Your task to perform on an android device: What's the weather going to be tomorrow? Image 0: 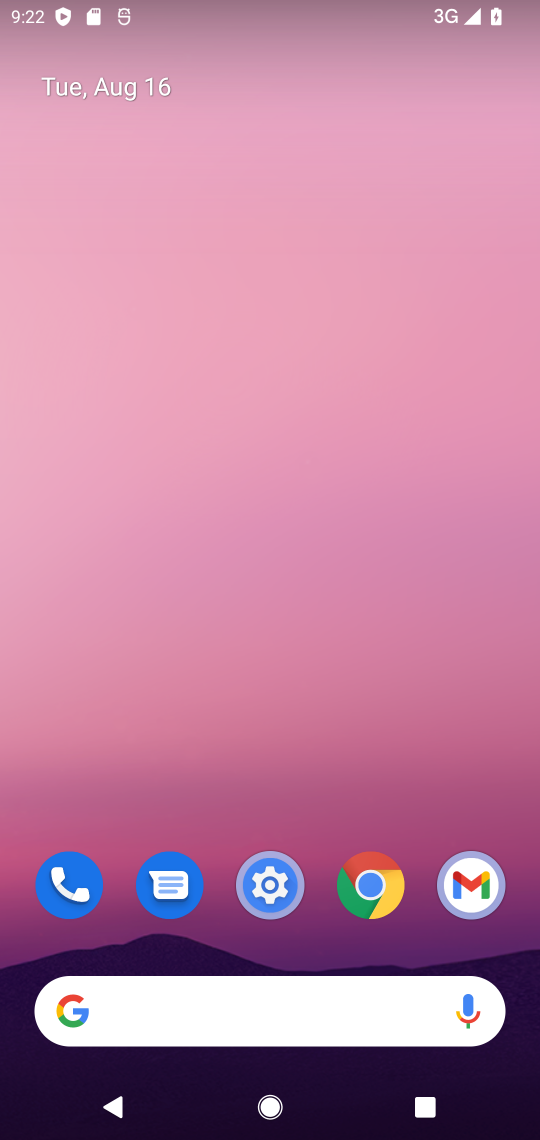
Step 0: drag from (243, 792) to (303, 60)
Your task to perform on an android device: What's the weather going to be tomorrow? Image 1: 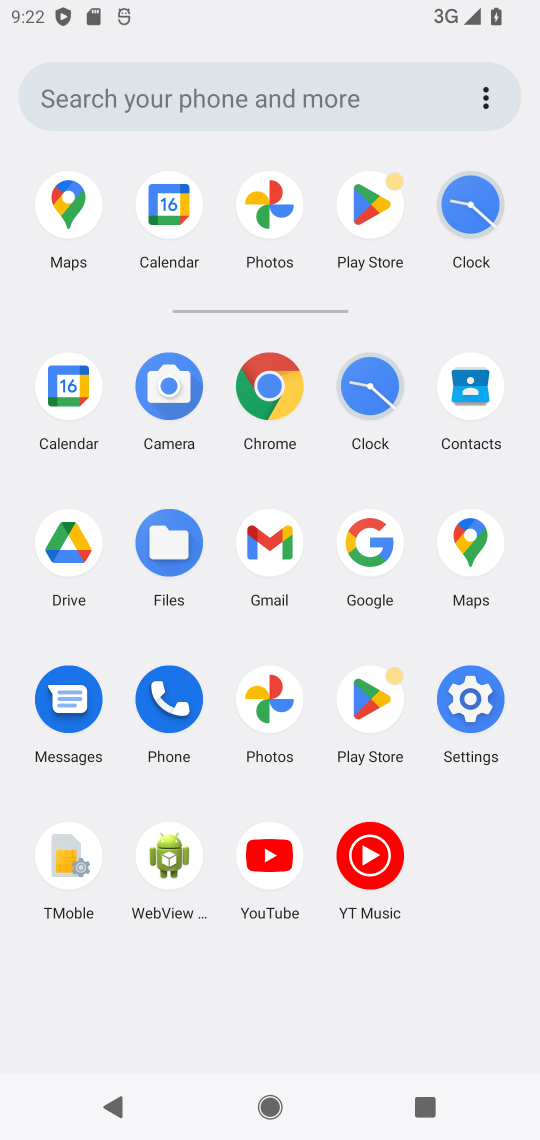
Step 1: click (368, 570)
Your task to perform on an android device: What's the weather going to be tomorrow? Image 2: 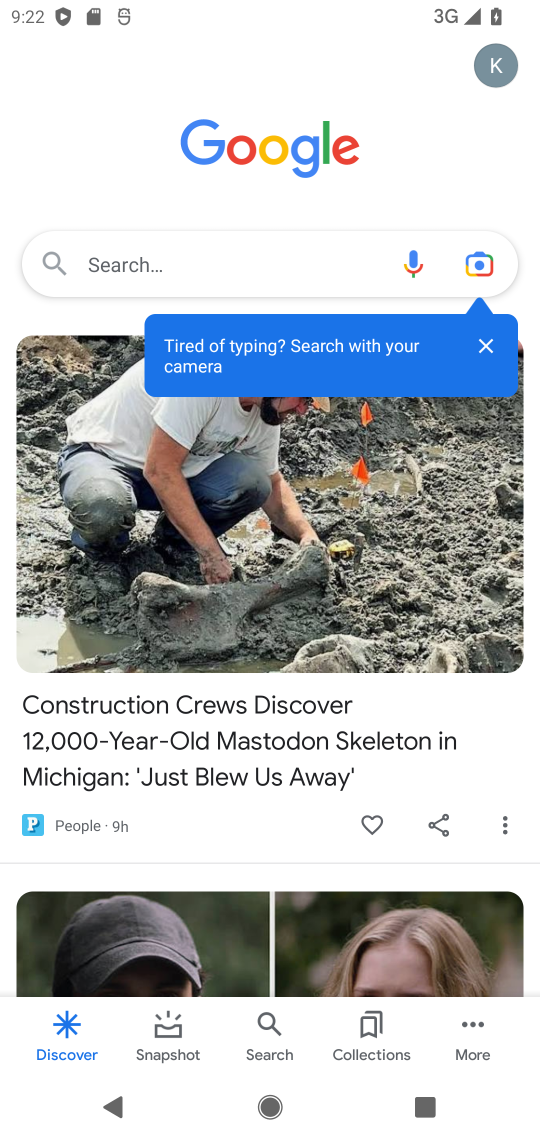
Step 2: click (140, 263)
Your task to perform on an android device: What's the weather going to be tomorrow? Image 3: 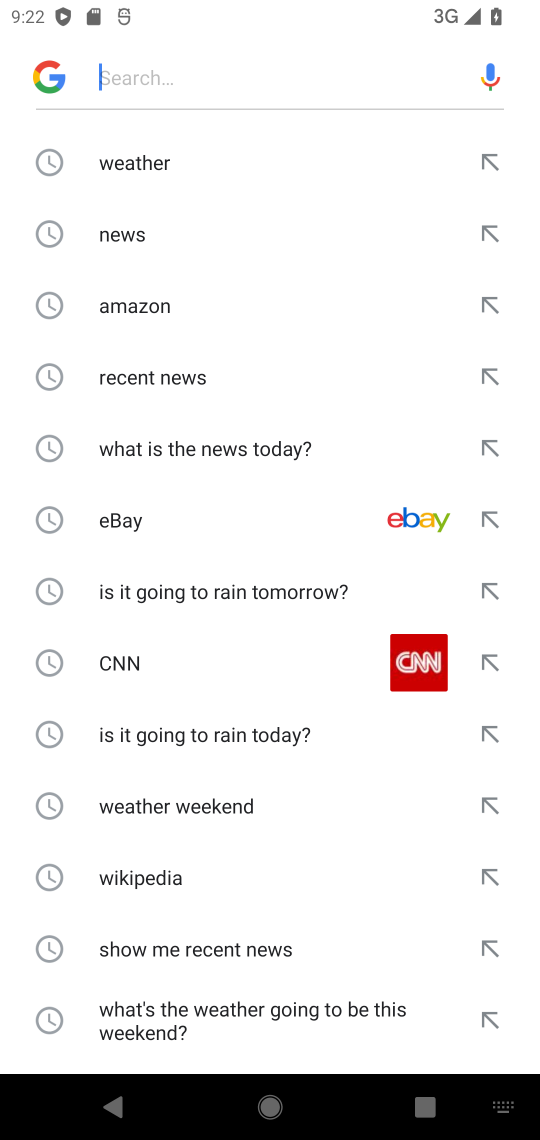
Step 3: click (167, 167)
Your task to perform on an android device: What's the weather going to be tomorrow? Image 4: 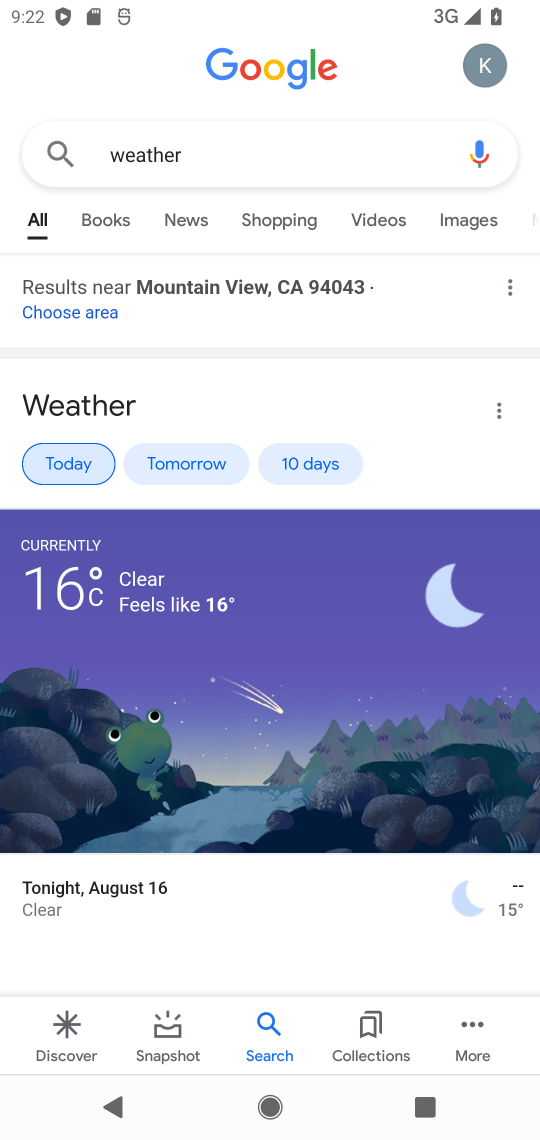
Step 4: click (186, 474)
Your task to perform on an android device: What's the weather going to be tomorrow? Image 5: 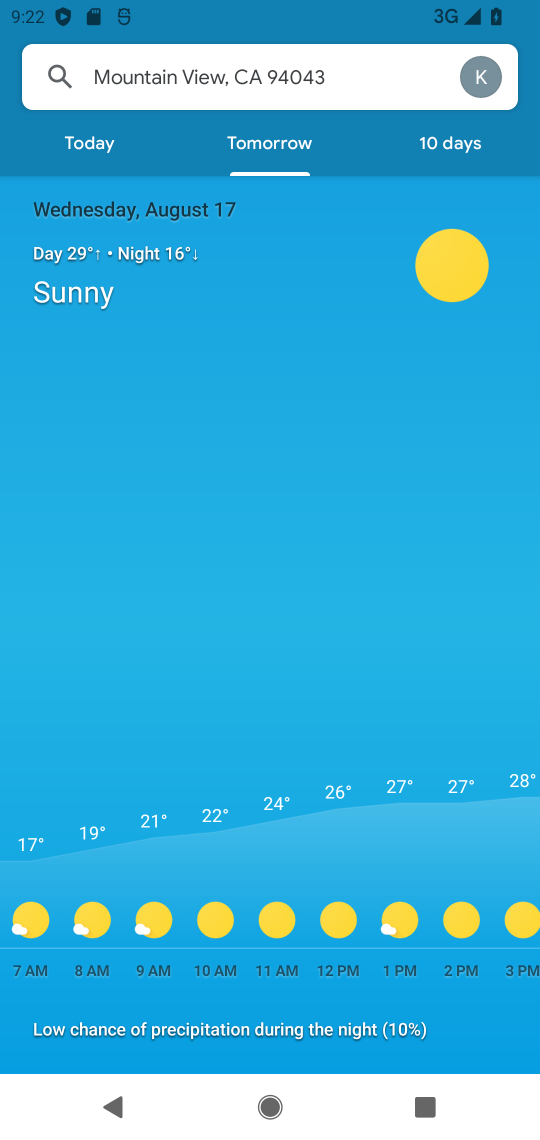
Step 5: task complete